Your task to perform on an android device: toggle notification dots Image 0: 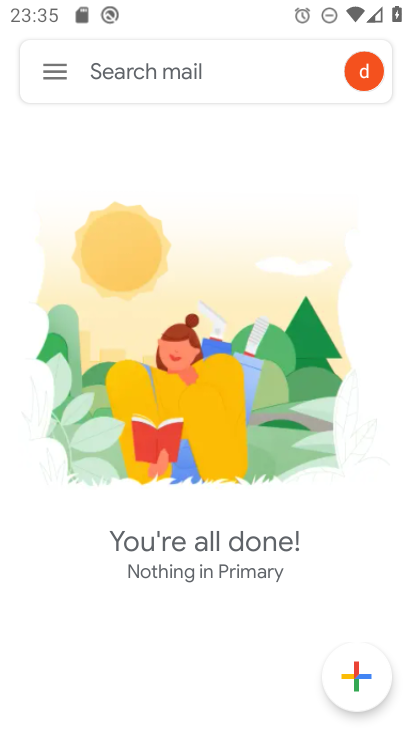
Step 0: press home button
Your task to perform on an android device: toggle notification dots Image 1: 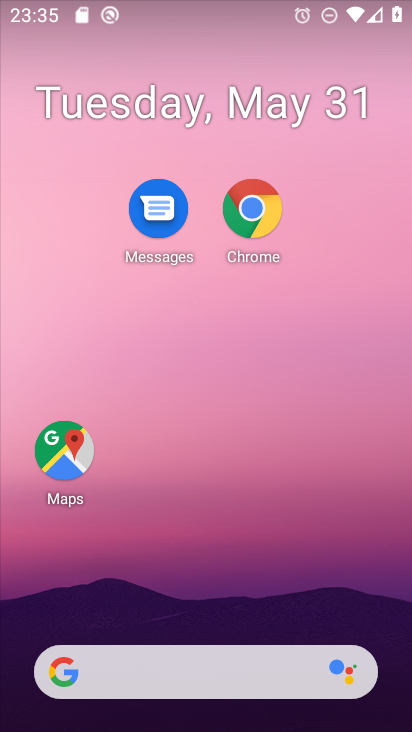
Step 1: drag from (227, 627) to (250, 41)
Your task to perform on an android device: toggle notification dots Image 2: 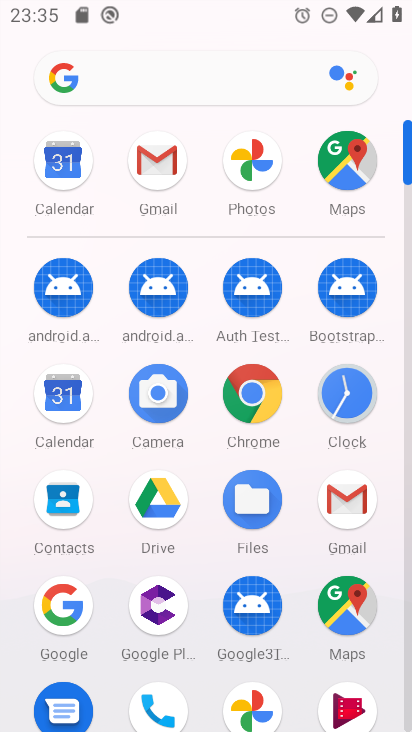
Step 2: drag from (203, 643) to (223, 146)
Your task to perform on an android device: toggle notification dots Image 3: 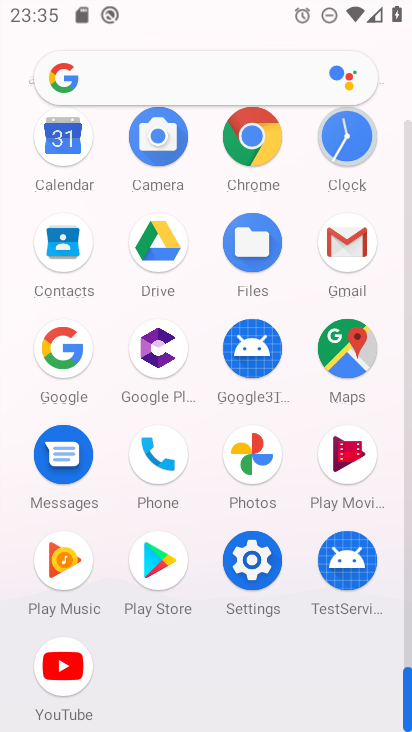
Step 3: click (247, 553)
Your task to perform on an android device: toggle notification dots Image 4: 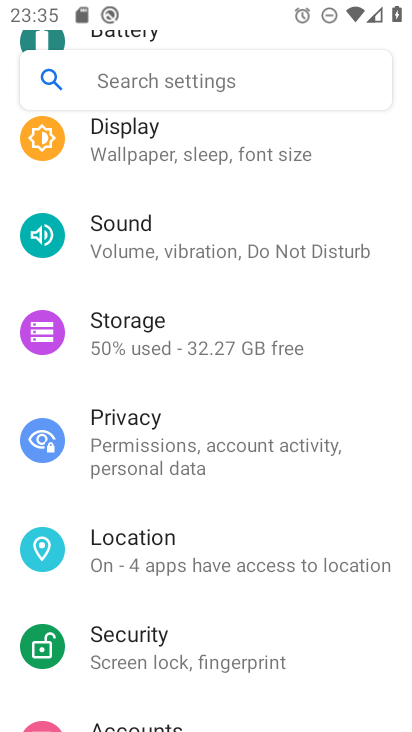
Step 4: drag from (167, 194) to (169, 698)
Your task to perform on an android device: toggle notification dots Image 5: 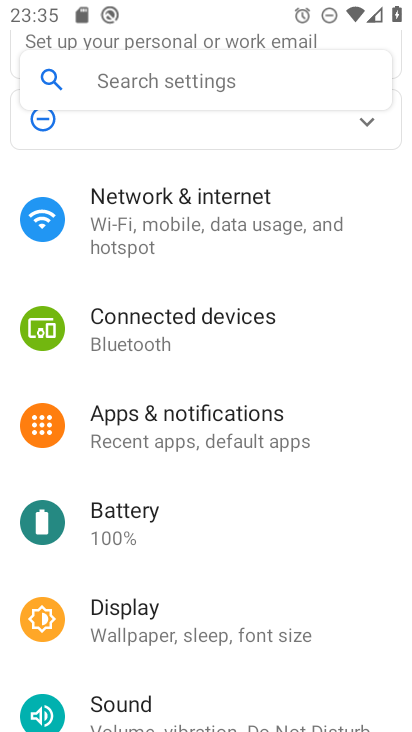
Step 5: click (73, 415)
Your task to perform on an android device: toggle notification dots Image 6: 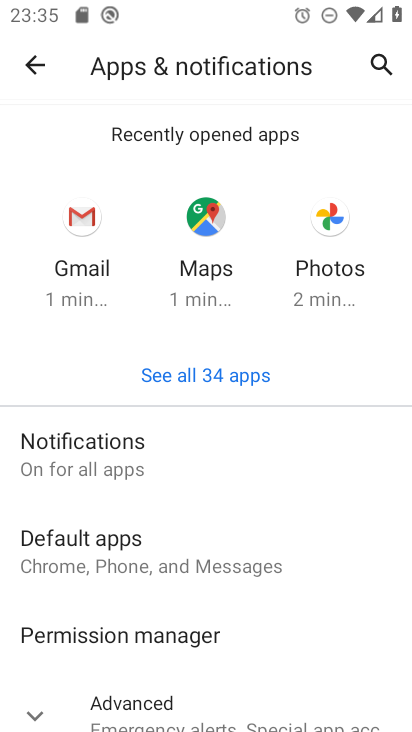
Step 6: click (157, 444)
Your task to perform on an android device: toggle notification dots Image 7: 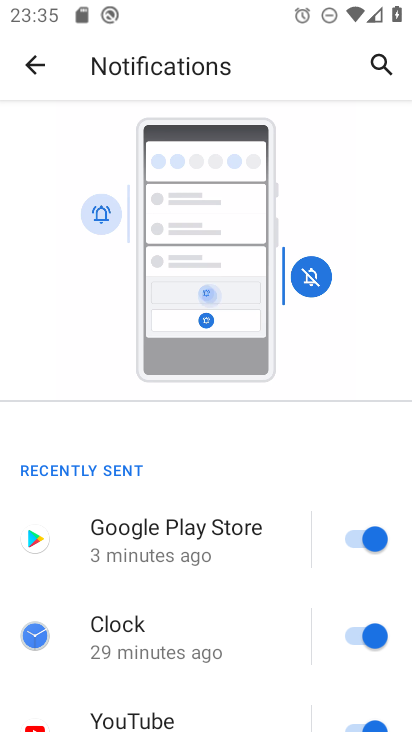
Step 7: drag from (286, 691) to (324, 196)
Your task to perform on an android device: toggle notification dots Image 8: 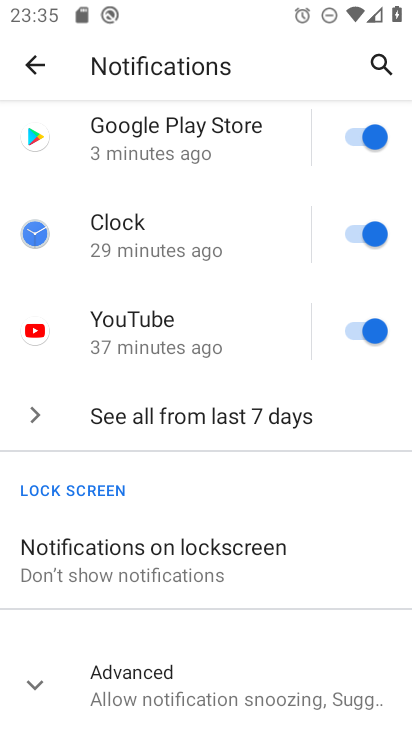
Step 8: click (32, 676)
Your task to perform on an android device: toggle notification dots Image 9: 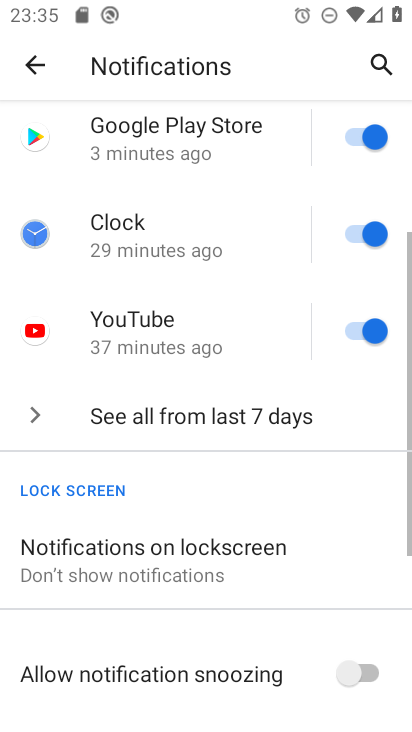
Step 9: drag from (215, 665) to (255, 66)
Your task to perform on an android device: toggle notification dots Image 10: 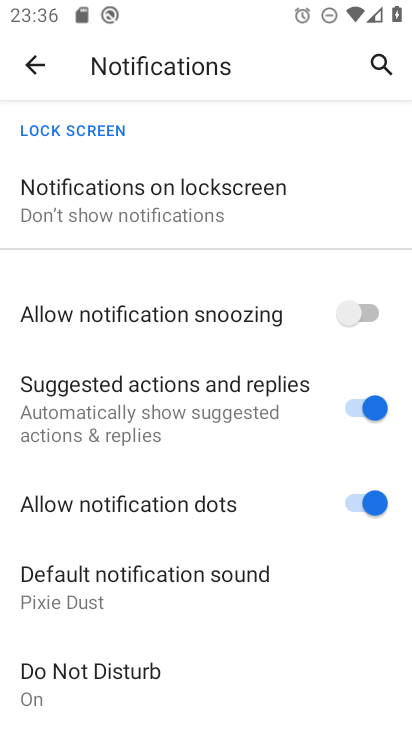
Step 10: click (354, 500)
Your task to perform on an android device: toggle notification dots Image 11: 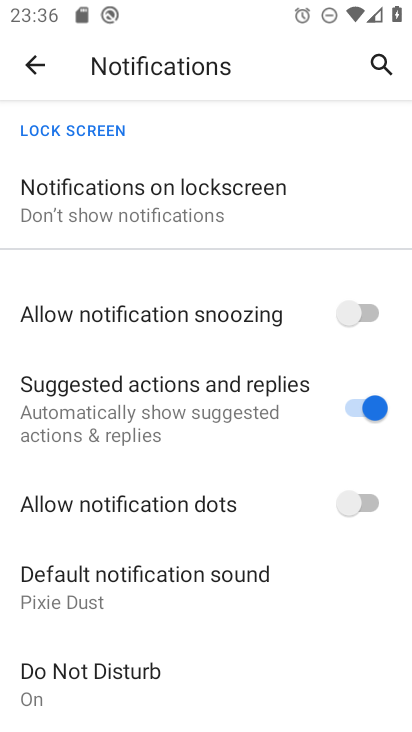
Step 11: task complete